Your task to perform on an android device: Is it going to rain tomorrow? Image 0: 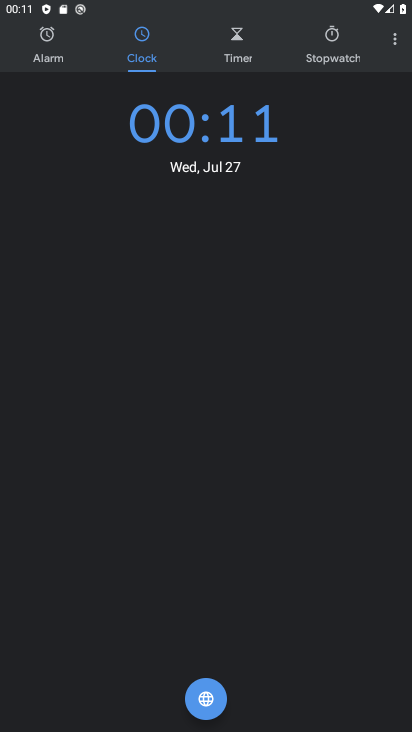
Step 0: press back button
Your task to perform on an android device: Is it going to rain tomorrow? Image 1: 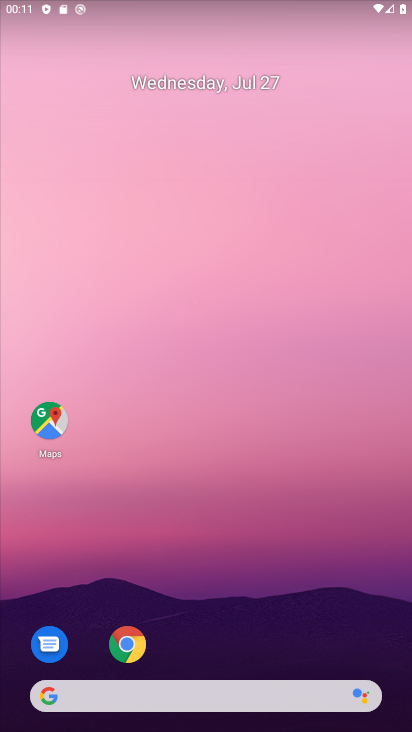
Step 1: drag from (150, 132) to (197, 100)
Your task to perform on an android device: Is it going to rain tomorrow? Image 2: 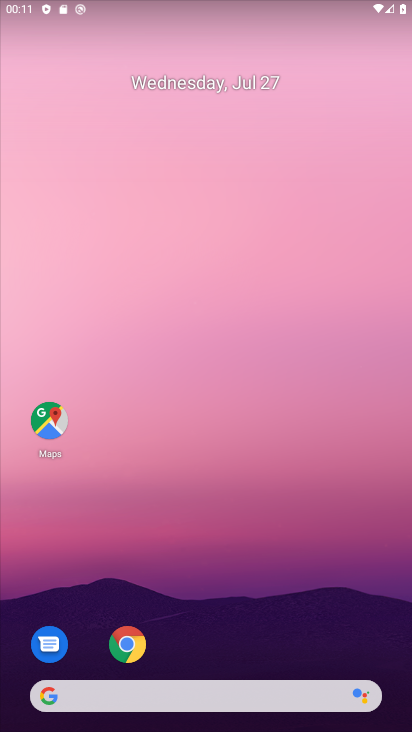
Step 2: drag from (175, 521) to (175, 200)
Your task to perform on an android device: Is it going to rain tomorrow? Image 3: 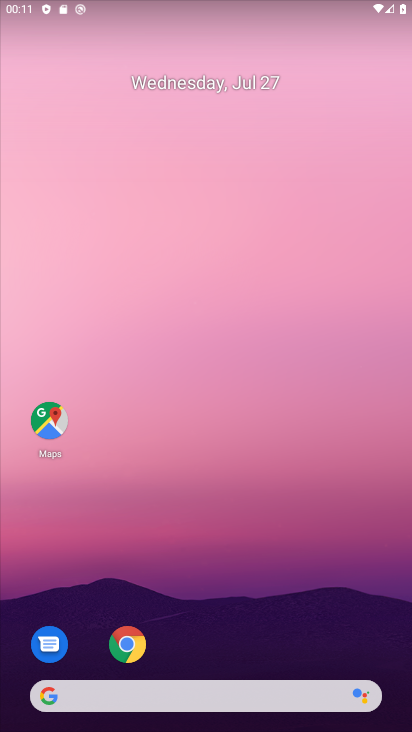
Step 3: click (220, 268)
Your task to perform on an android device: Is it going to rain tomorrow? Image 4: 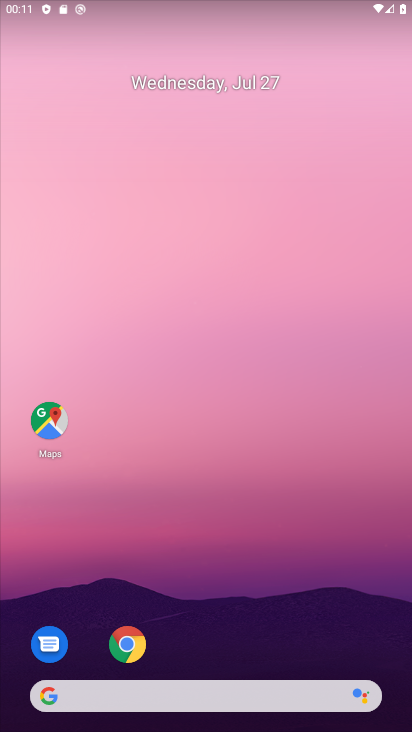
Step 4: click (218, 242)
Your task to perform on an android device: Is it going to rain tomorrow? Image 5: 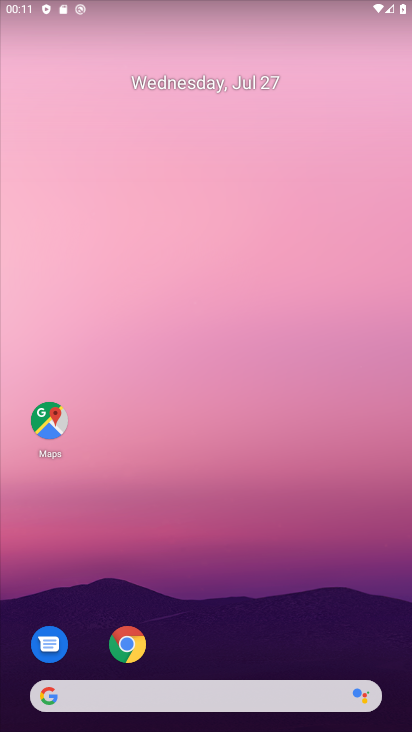
Step 5: drag from (254, 570) to (135, 171)
Your task to perform on an android device: Is it going to rain tomorrow? Image 6: 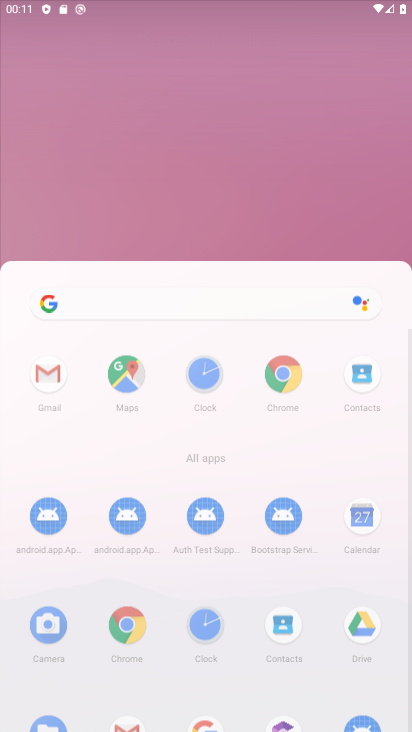
Step 6: click (336, 276)
Your task to perform on an android device: Is it going to rain tomorrow? Image 7: 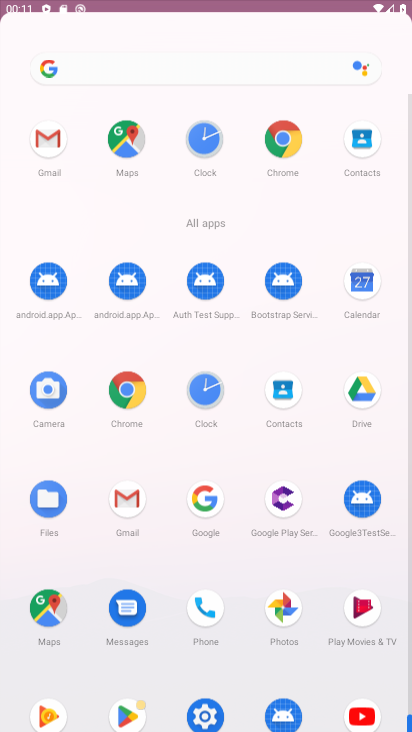
Step 7: drag from (362, 425) to (362, 136)
Your task to perform on an android device: Is it going to rain tomorrow? Image 8: 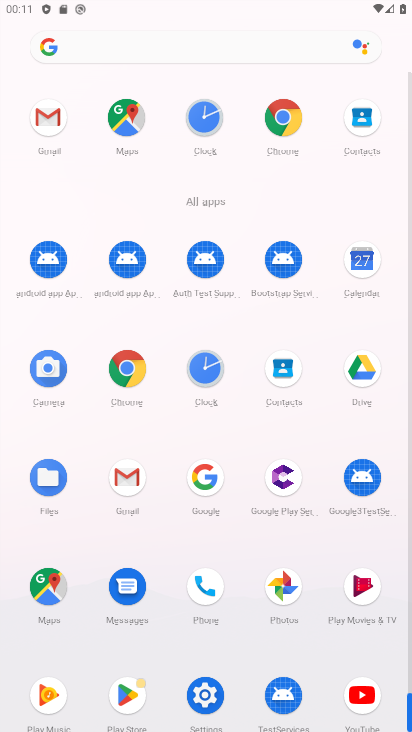
Step 8: click (288, 115)
Your task to perform on an android device: Is it going to rain tomorrow? Image 9: 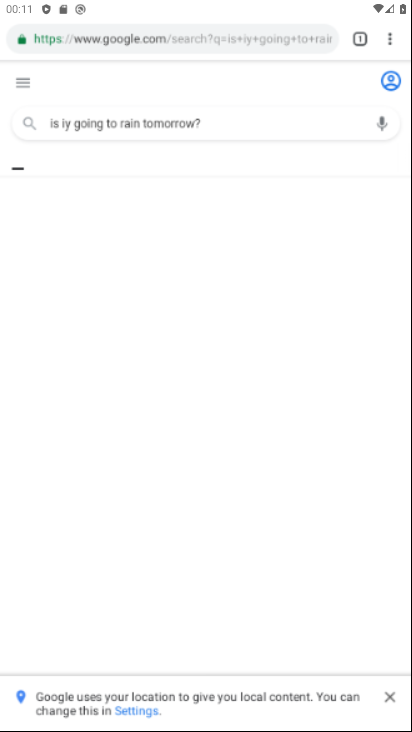
Step 9: click (314, 133)
Your task to perform on an android device: Is it going to rain tomorrow? Image 10: 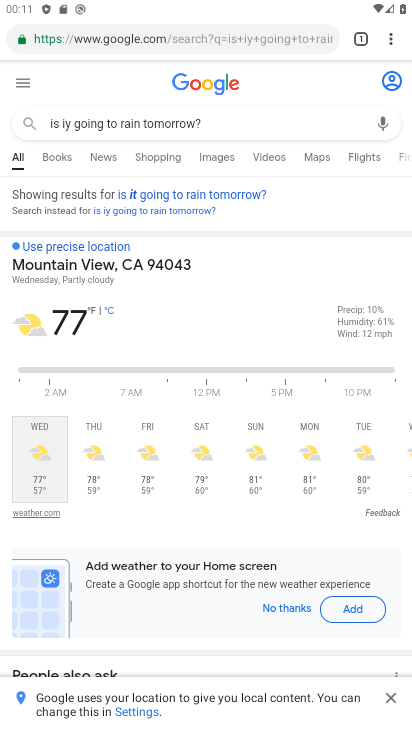
Step 10: click (169, 131)
Your task to perform on an android device: Is it going to rain tomorrow? Image 11: 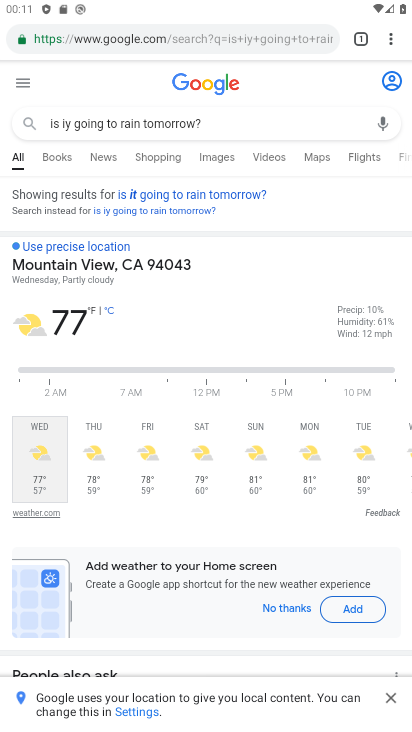
Step 11: click (169, 126)
Your task to perform on an android device: Is it going to rain tomorrow? Image 12: 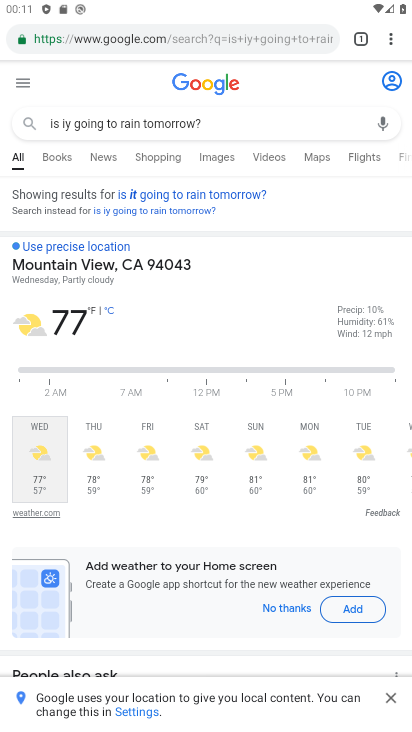
Step 12: click (169, 126)
Your task to perform on an android device: Is it going to rain tomorrow? Image 13: 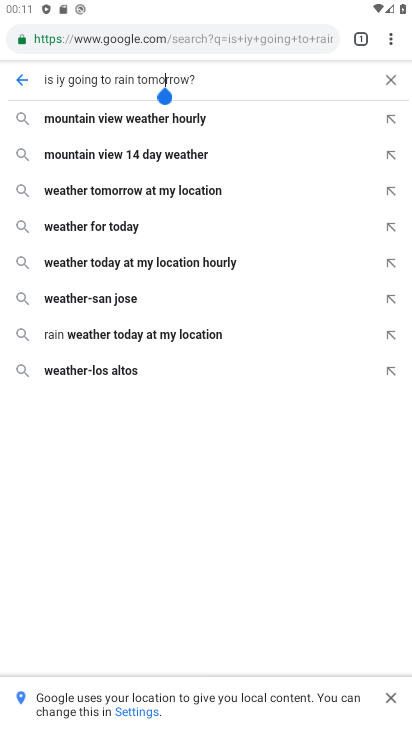
Step 13: click (168, 125)
Your task to perform on an android device: Is it going to rain tomorrow? Image 14: 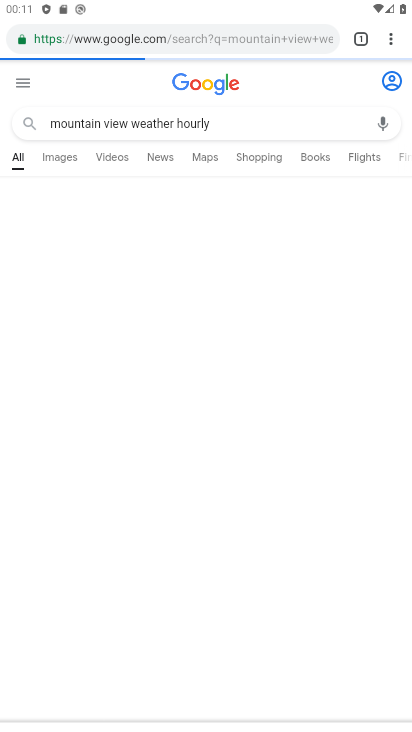
Step 14: click (241, 83)
Your task to perform on an android device: Is it going to rain tomorrow? Image 15: 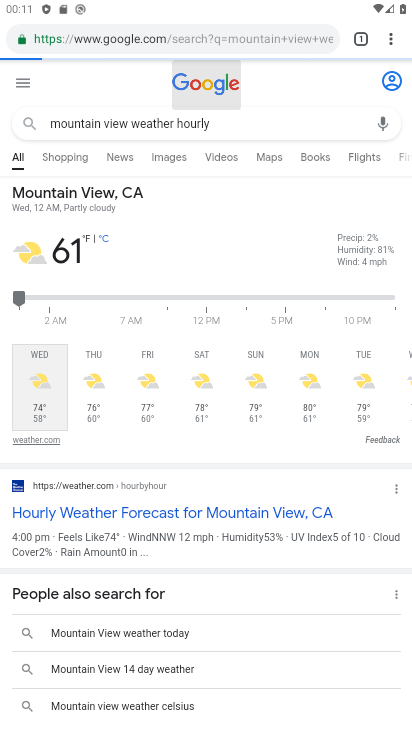
Step 15: click (242, 82)
Your task to perform on an android device: Is it going to rain tomorrow? Image 16: 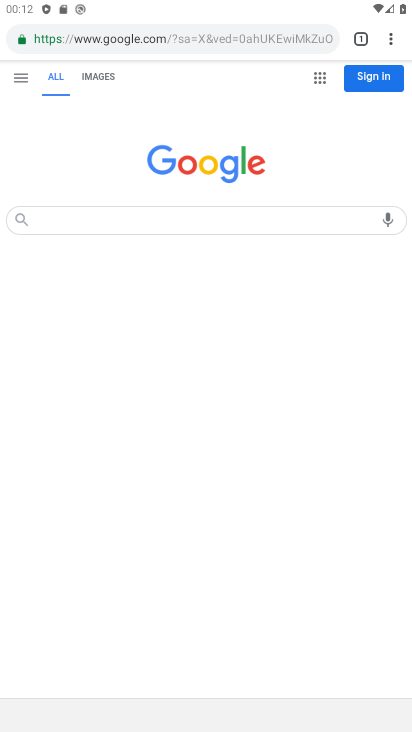
Step 16: click (111, 213)
Your task to perform on an android device: Is it going to rain tomorrow? Image 17: 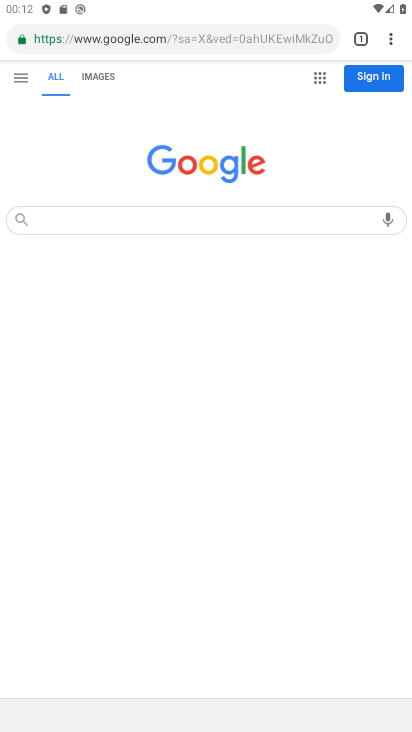
Step 17: click (109, 213)
Your task to perform on an android device: Is it going to rain tomorrow? Image 18: 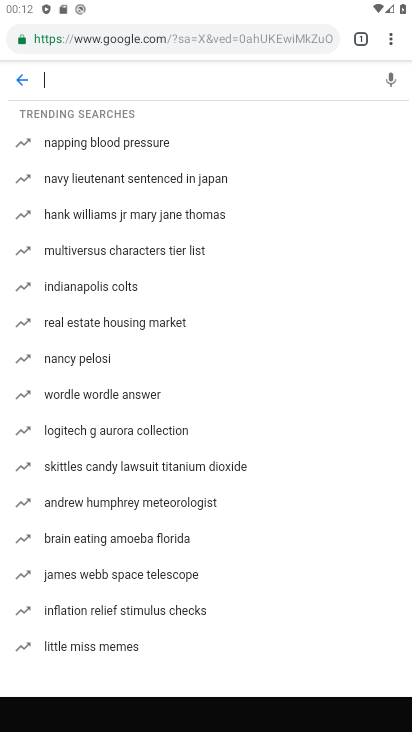
Step 18: click (106, 210)
Your task to perform on an android device: Is it going to rain tomorrow? Image 19: 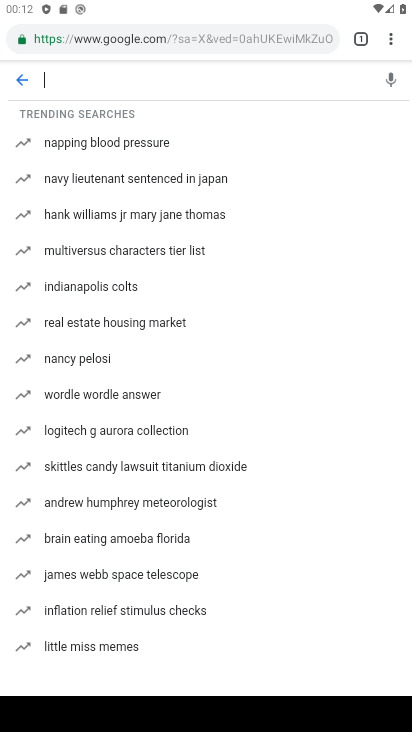
Step 19: click (106, 210)
Your task to perform on an android device: Is it going to rain tomorrow? Image 20: 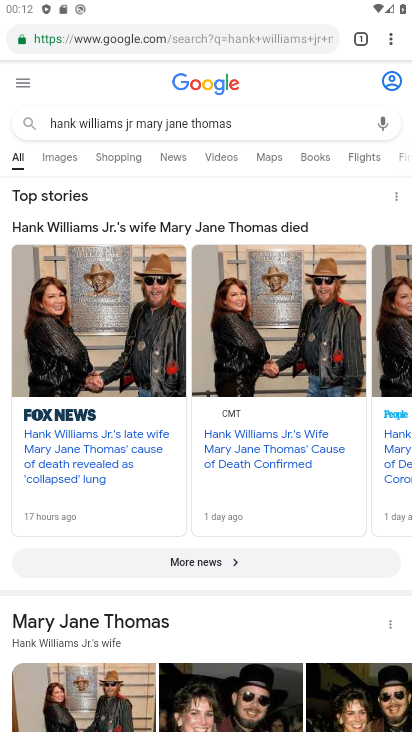
Step 20: click (275, 121)
Your task to perform on an android device: Is it going to rain tomorrow? Image 21: 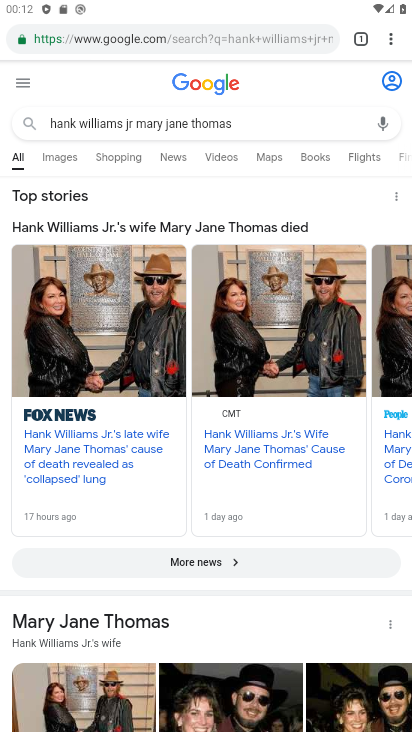
Step 21: click (275, 121)
Your task to perform on an android device: Is it going to rain tomorrow? Image 22: 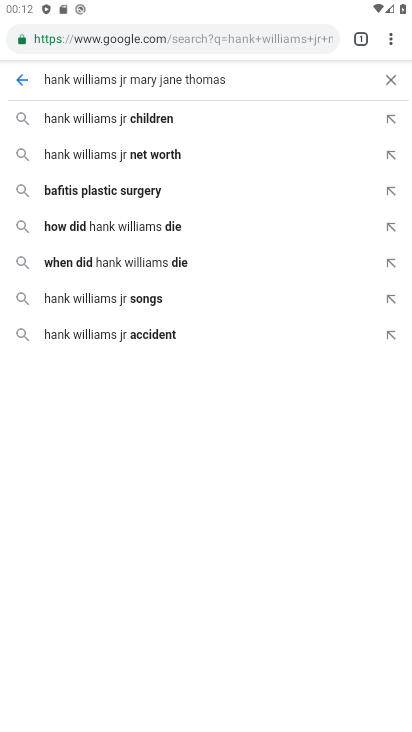
Step 22: click (386, 81)
Your task to perform on an android device: Is it going to rain tomorrow? Image 23: 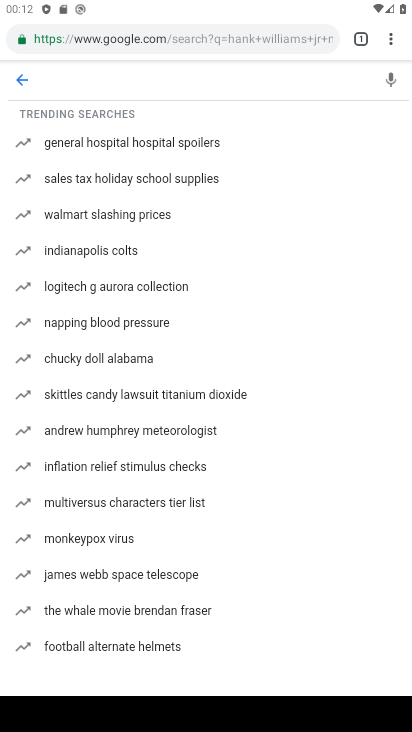
Step 23: type "is it going to rain rtoday?"
Your task to perform on an android device: Is it going to rain tomorrow? Image 24: 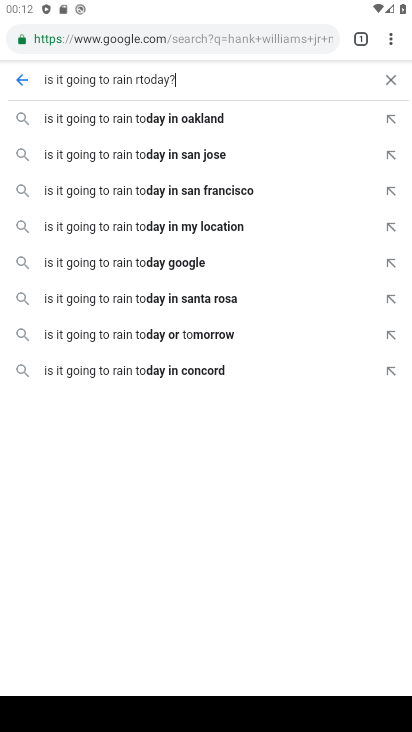
Step 24: click (218, 324)
Your task to perform on an android device: Is it going to rain tomorrow? Image 25: 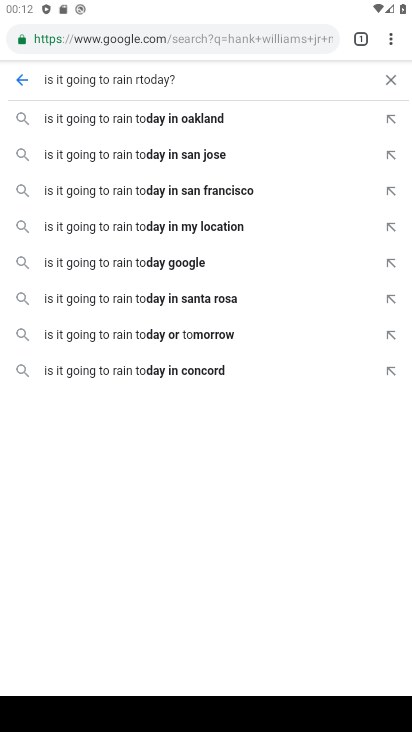
Step 25: click (217, 323)
Your task to perform on an android device: Is it going to rain tomorrow? Image 26: 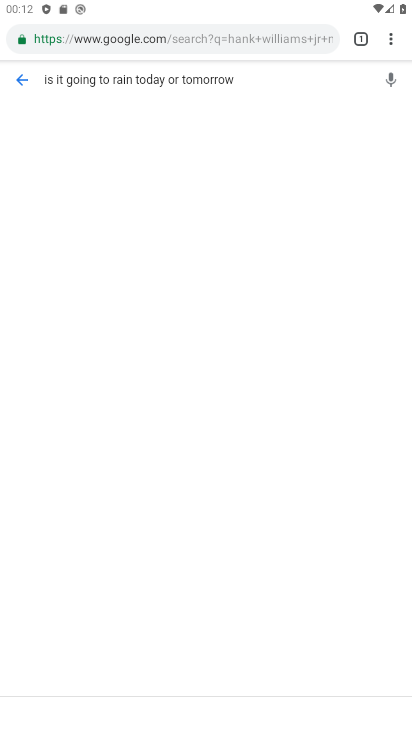
Step 26: click (217, 323)
Your task to perform on an android device: Is it going to rain tomorrow? Image 27: 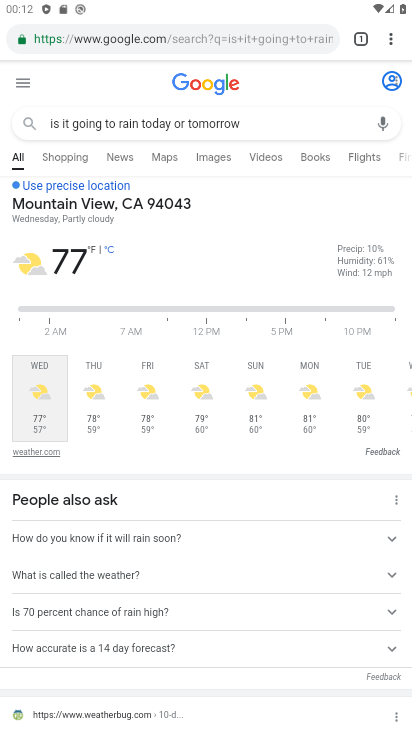
Step 27: task complete